Your task to perform on an android device: What's the news in Peru? Image 0: 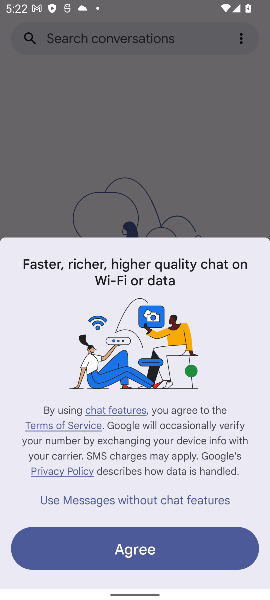
Step 0: press home button
Your task to perform on an android device: What's the news in Peru? Image 1: 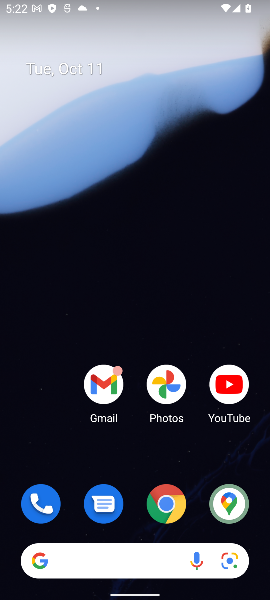
Step 1: click (57, 557)
Your task to perform on an android device: What's the news in Peru? Image 2: 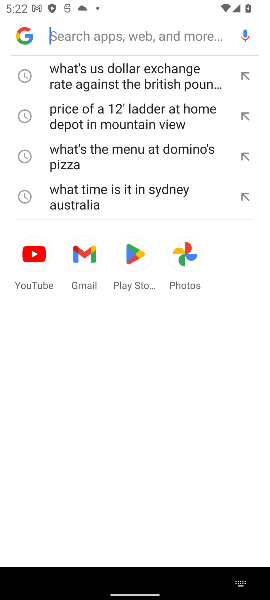
Step 2: click (130, 36)
Your task to perform on an android device: What's the news in Peru? Image 3: 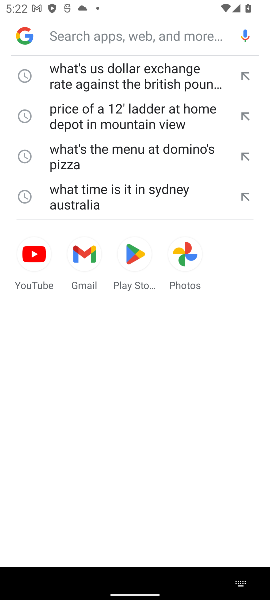
Step 3: type "What's the news in Peru?"
Your task to perform on an android device: What's the news in Peru? Image 4: 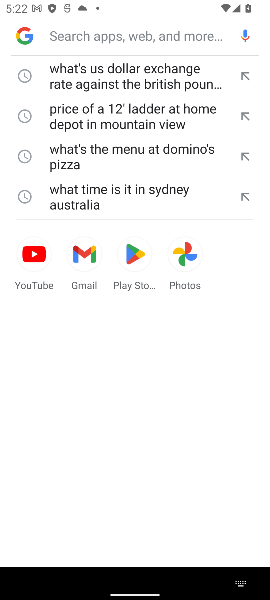
Step 4: click (179, 421)
Your task to perform on an android device: What's the news in Peru? Image 5: 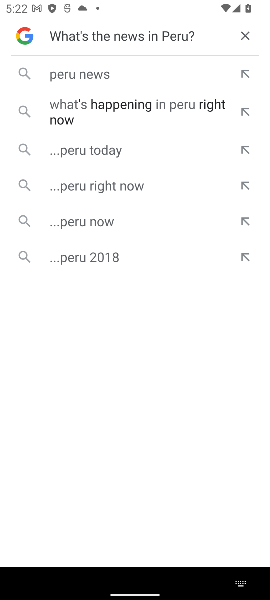
Step 5: click (95, 77)
Your task to perform on an android device: What's the news in Peru? Image 6: 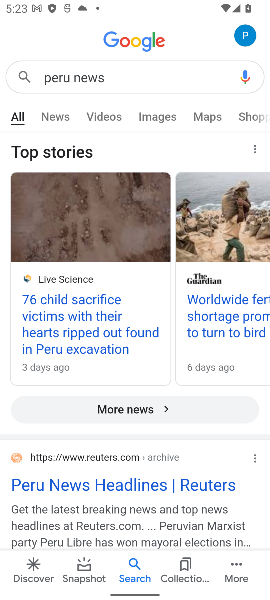
Step 6: drag from (122, 476) to (177, 213)
Your task to perform on an android device: What's the news in Peru? Image 7: 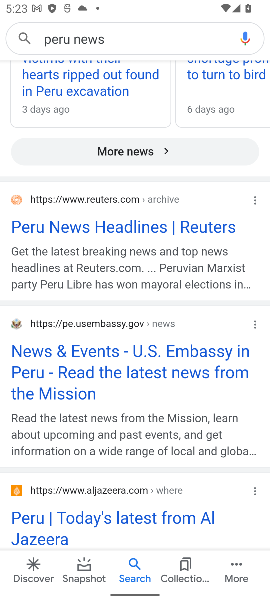
Step 7: click (92, 221)
Your task to perform on an android device: What's the news in Peru? Image 8: 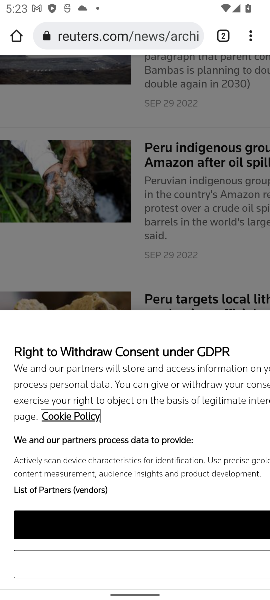
Step 8: task complete